Your task to perform on an android device: Clear the shopping cart on walmart. Search for logitech g pro on walmart, select the first entry, and add it to the cart. Image 0: 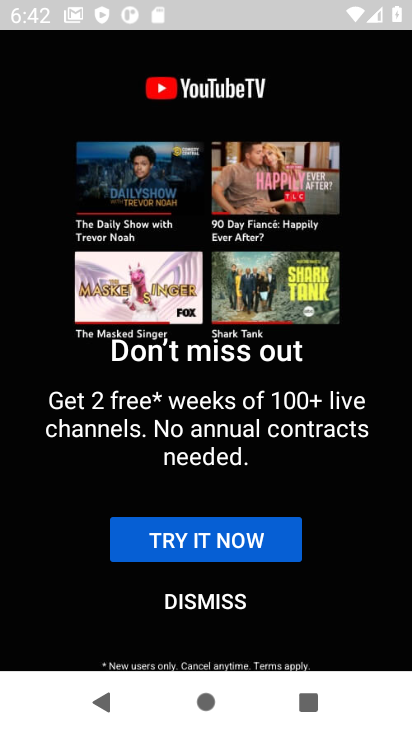
Step 0: press home button
Your task to perform on an android device: Clear the shopping cart on walmart. Search for logitech g pro on walmart, select the first entry, and add it to the cart. Image 1: 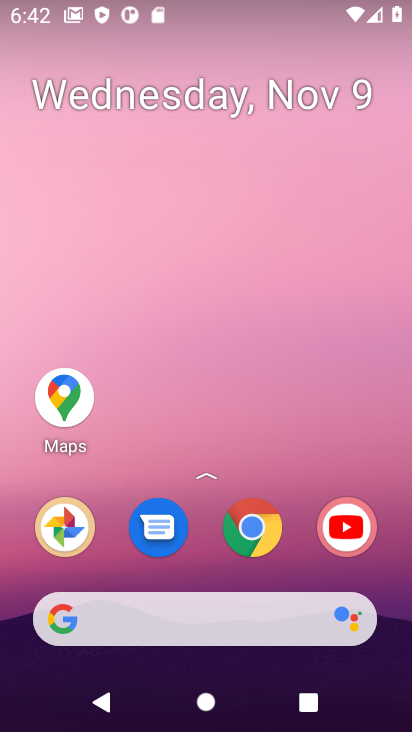
Step 1: click (241, 534)
Your task to perform on an android device: Clear the shopping cart on walmart. Search for logitech g pro on walmart, select the first entry, and add it to the cart. Image 2: 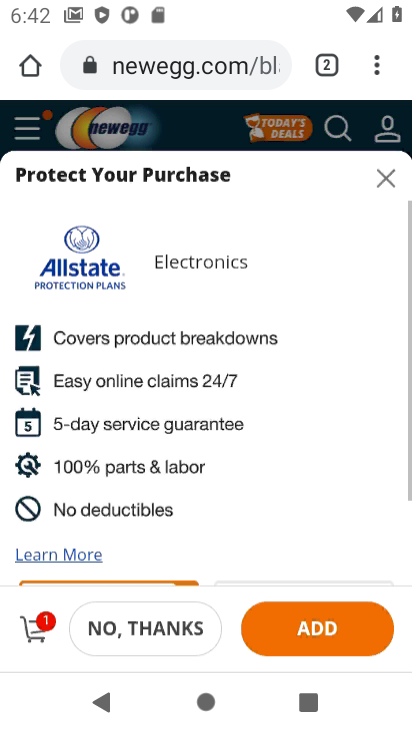
Step 2: click (147, 73)
Your task to perform on an android device: Clear the shopping cart on walmart. Search for logitech g pro on walmart, select the first entry, and add it to the cart. Image 3: 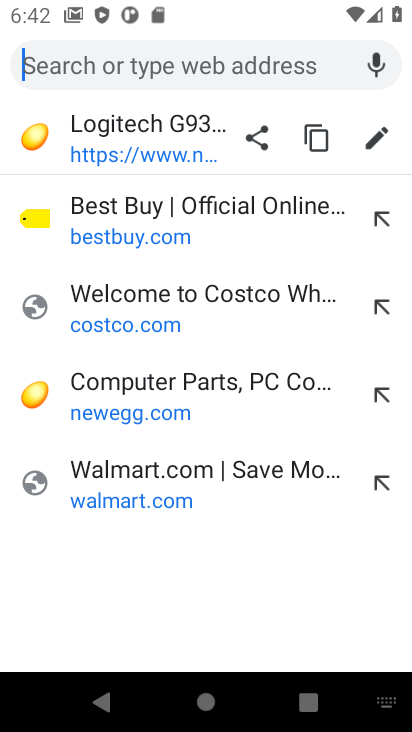
Step 3: click (119, 475)
Your task to perform on an android device: Clear the shopping cart on walmart. Search for logitech g pro on walmart, select the first entry, and add it to the cart. Image 4: 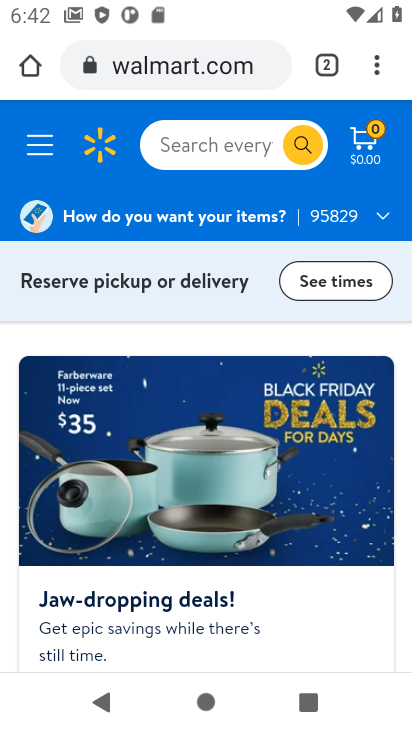
Step 4: click (361, 155)
Your task to perform on an android device: Clear the shopping cart on walmart. Search for logitech g pro on walmart, select the first entry, and add it to the cart. Image 5: 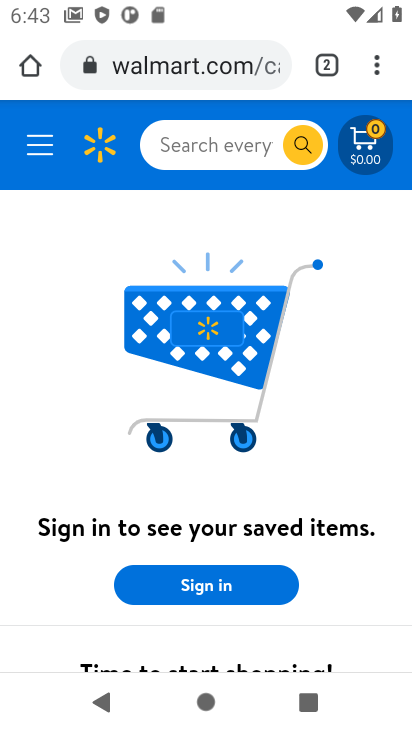
Step 5: click (211, 154)
Your task to perform on an android device: Clear the shopping cart on walmart. Search for logitech g pro on walmart, select the first entry, and add it to the cart. Image 6: 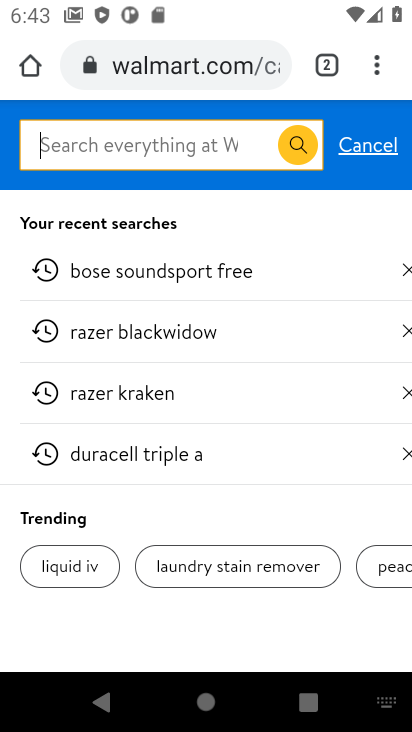
Step 6: type "logitech g pro"
Your task to perform on an android device: Clear the shopping cart on walmart. Search for logitech g pro on walmart, select the first entry, and add it to the cart. Image 7: 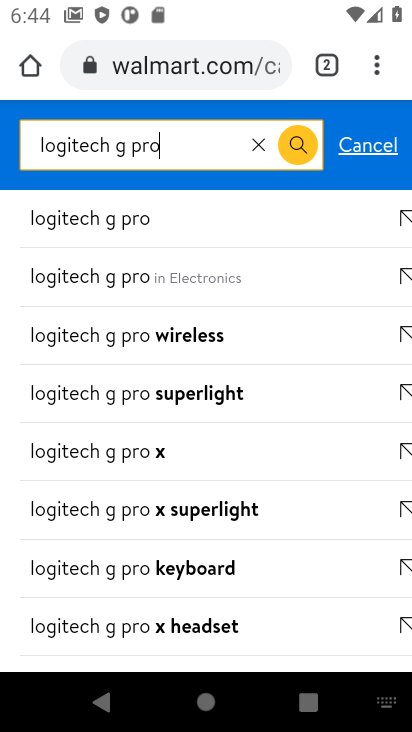
Step 7: click (108, 215)
Your task to perform on an android device: Clear the shopping cart on walmart. Search for logitech g pro on walmart, select the first entry, and add it to the cart. Image 8: 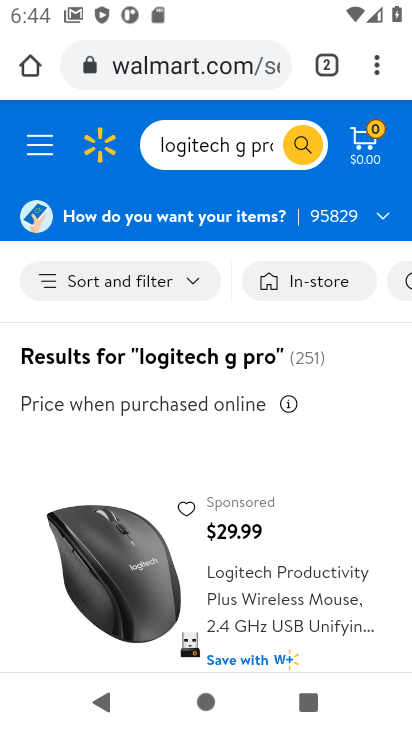
Step 8: task complete